Your task to perform on an android device: Toggle the flashlight Image 0: 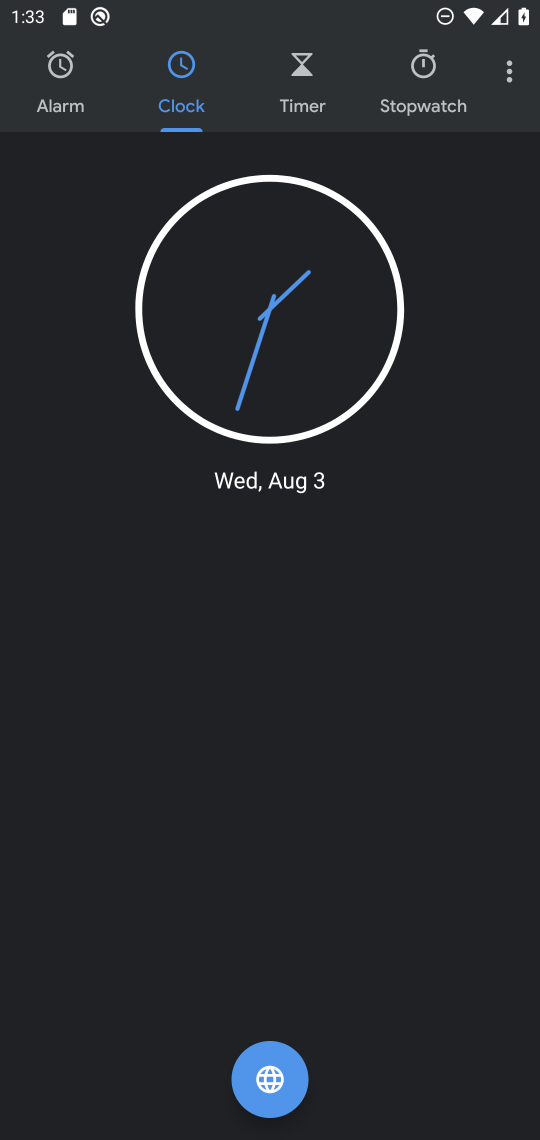
Step 0: press home button
Your task to perform on an android device: Toggle the flashlight Image 1: 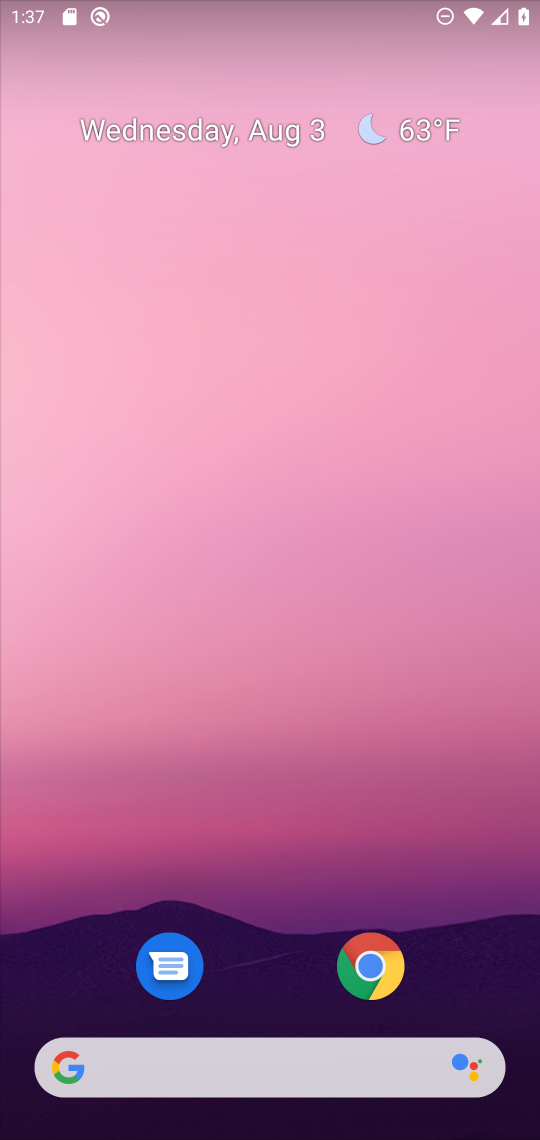
Step 1: drag from (276, 724) to (286, 155)
Your task to perform on an android device: Toggle the flashlight Image 2: 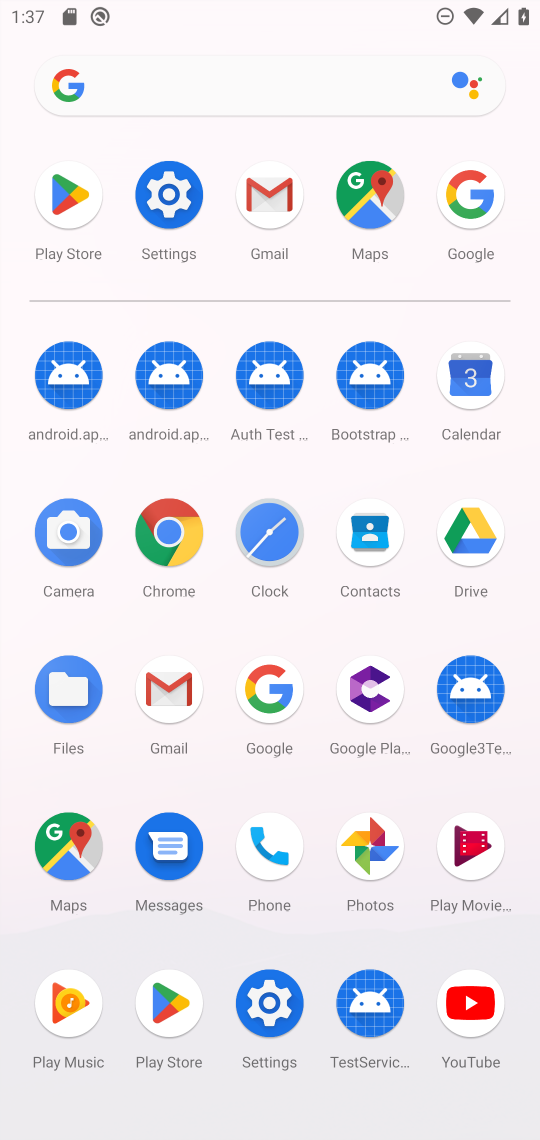
Step 2: click (187, 201)
Your task to perform on an android device: Toggle the flashlight Image 3: 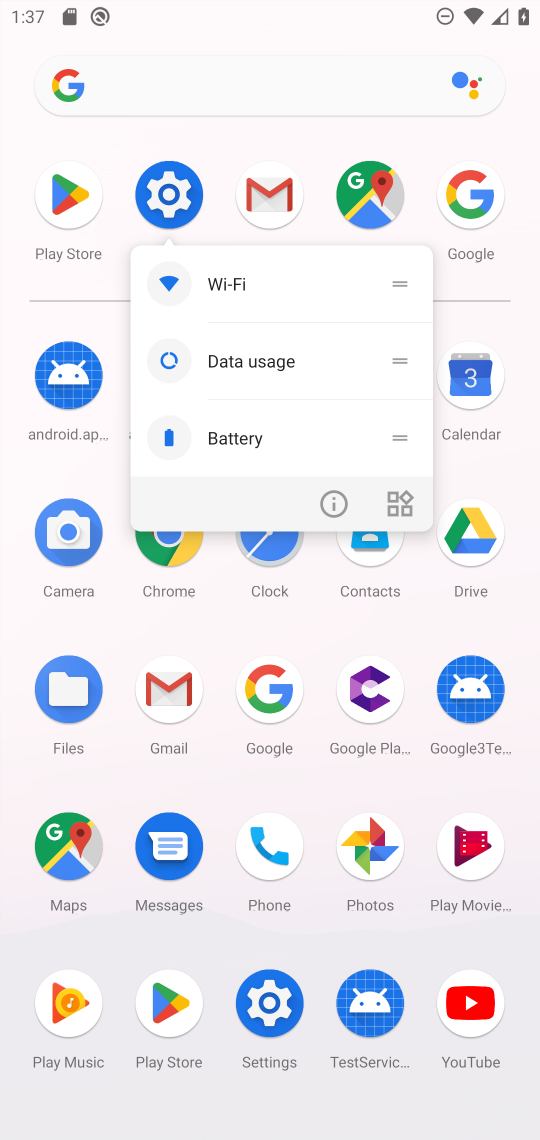
Step 3: click (184, 205)
Your task to perform on an android device: Toggle the flashlight Image 4: 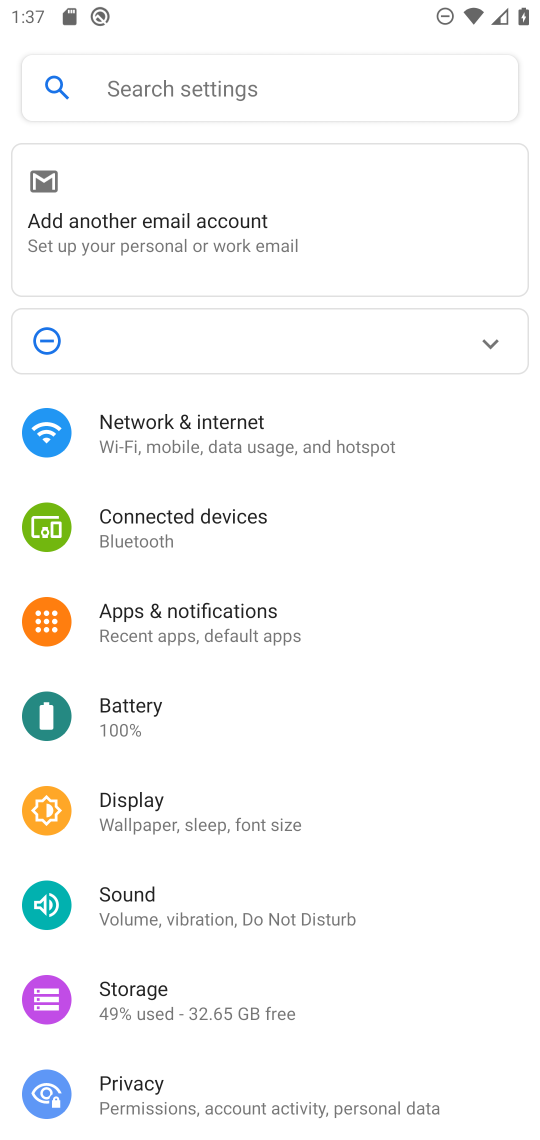
Step 4: task complete